Your task to perform on an android device: delete location history Image 0: 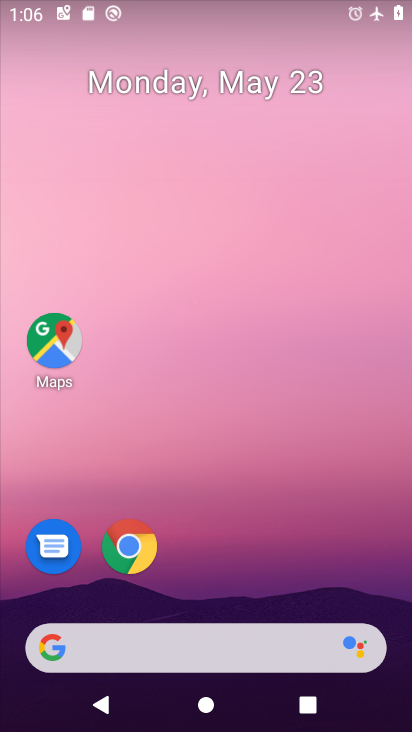
Step 0: drag from (210, 644) to (297, 23)
Your task to perform on an android device: delete location history Image 1: 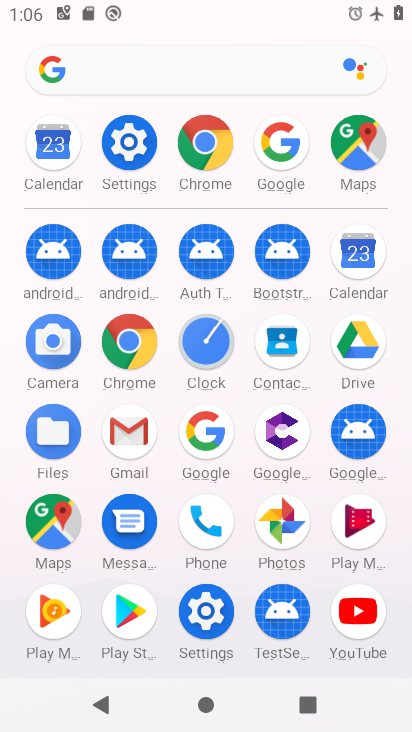
Step 1: click (114, 137)
Your task to perform on an android device: delete location history Image 2: 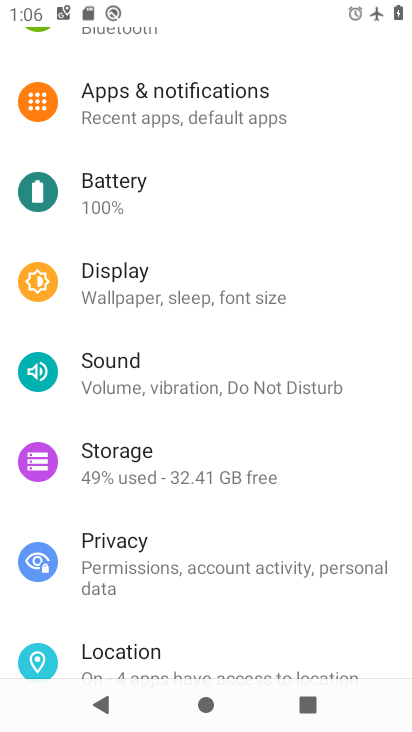
Step 2: drag from (192, 553) to (198, 200)
Your task to perform on an android device: delete location history Image 3: 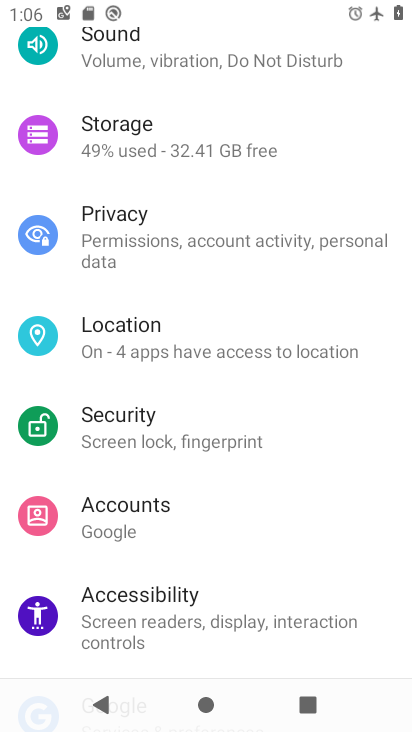
Step 3: click (236, 339)
Your task to perform on an android device: delete location history Image 4: 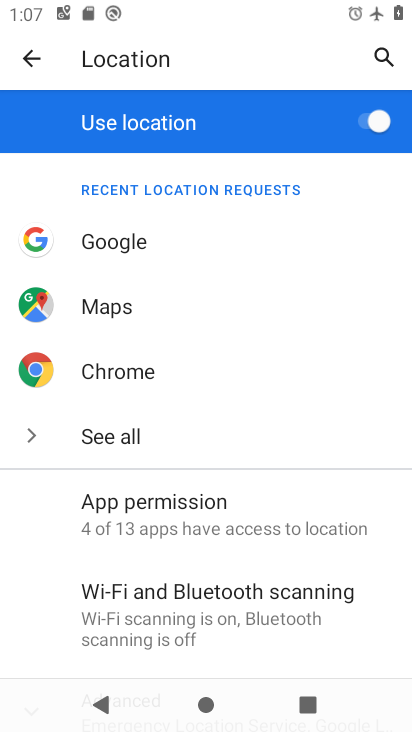
Step 4: drag from (226, 576) to (301, 234)
Your task to perform on an android device: delete location history Image 5: 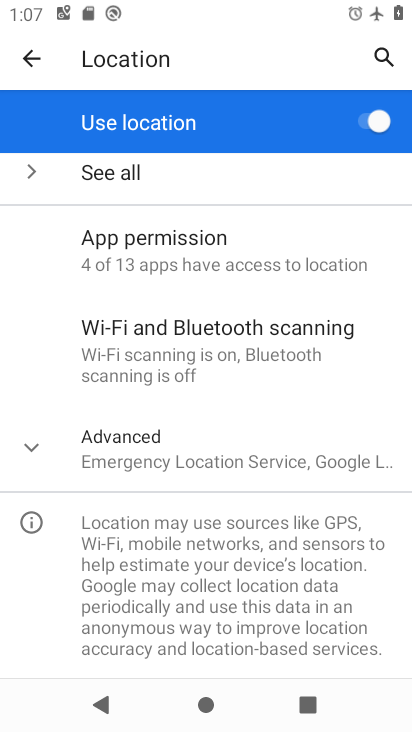
Step 5: click (233, 462)
Your task to perform on an android device: delete location history Image 6: 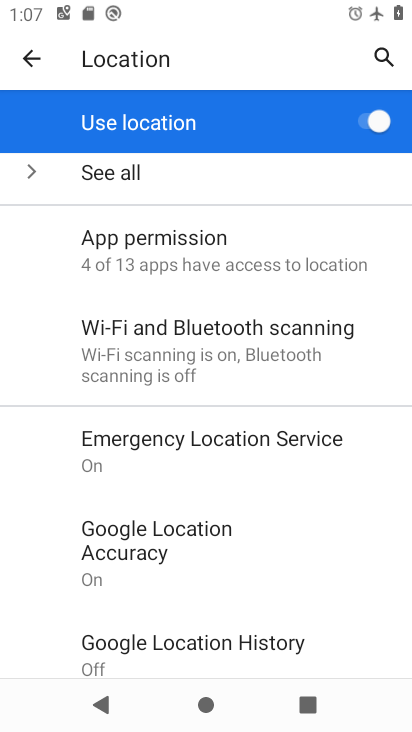
Step 6: click (248, 645)
Your task to perform on an android device: delete location history Image 7: 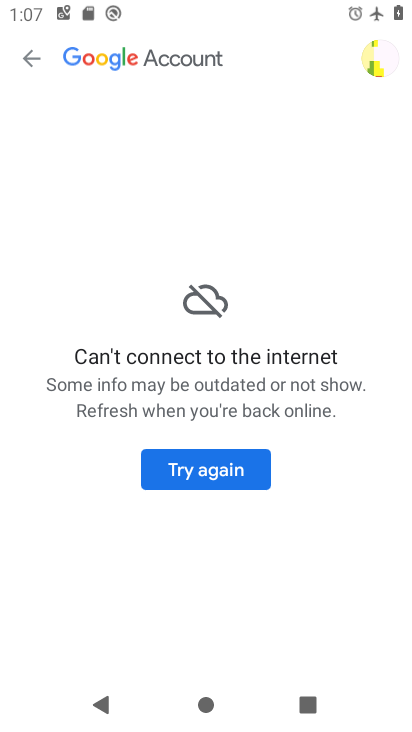
Step 7: click (202, 476)
Your task to perform on an android device: delete location history Image 8: 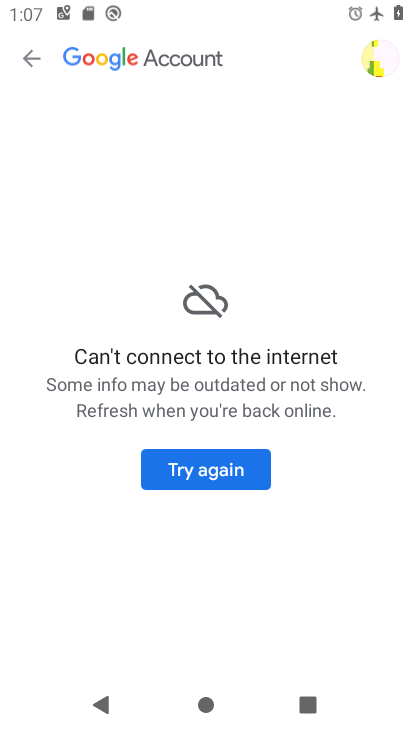
Step 8: task complete